Your task to perform on an android device: find snoozed emails in the gmail app Image 0: 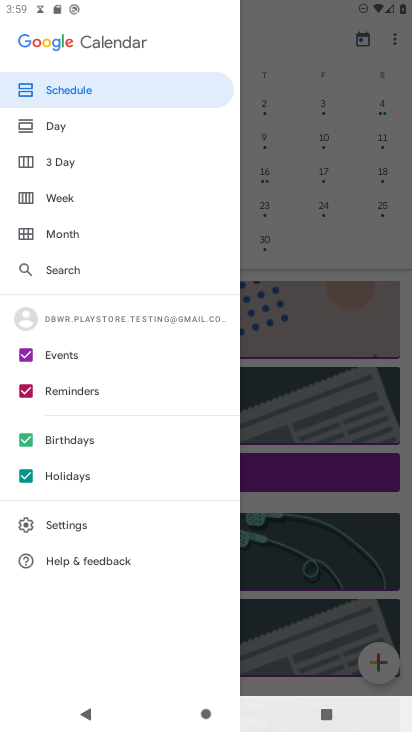
Step 0: press home button
Your task to perform on an android device: find snoozed emails in the gmail app Image 1: 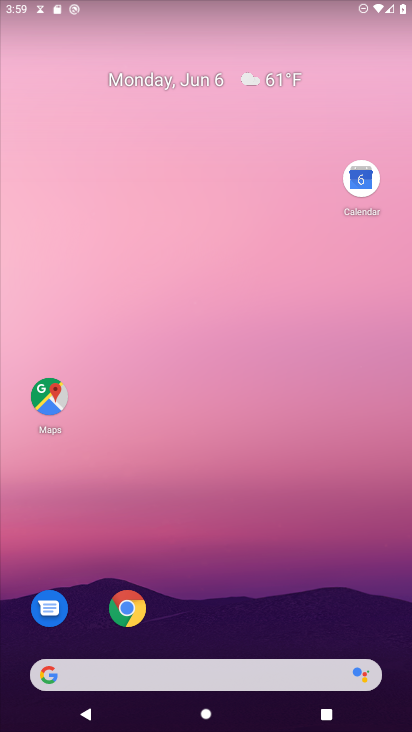
Step 1: drag from (305, 533) to (300, 12)
Your task to perform on an android device: find snoozed emails in the gmail app Image 2: 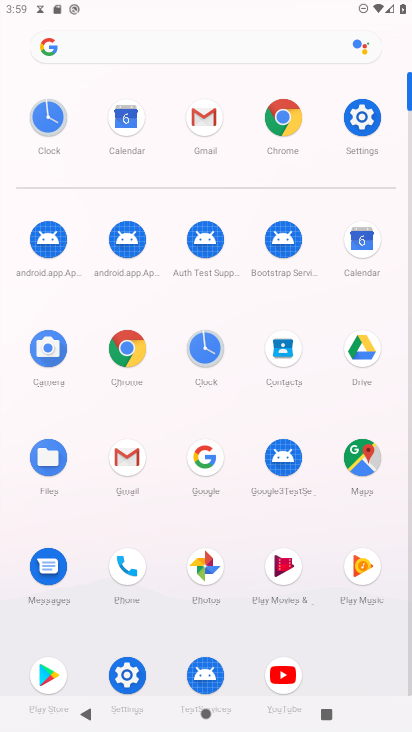
Step 2: click (122, 450)
Your task to perform on an android device: find snoozed emails in the gmail app Image 3: 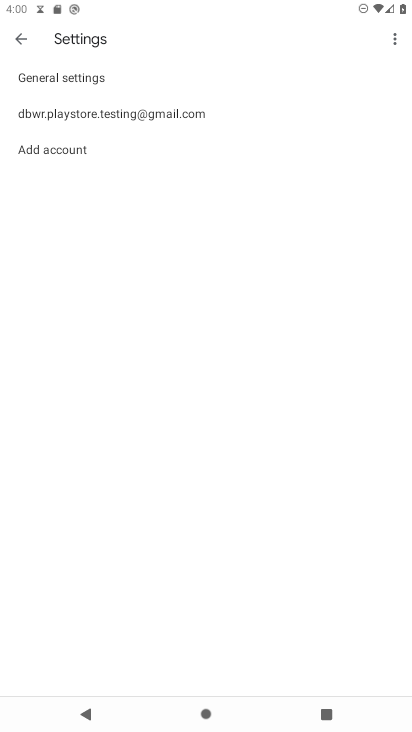
Step 3: click (13, 43)
Your task to perform on an android device: find snoozed emails in the gmail app Image 4: 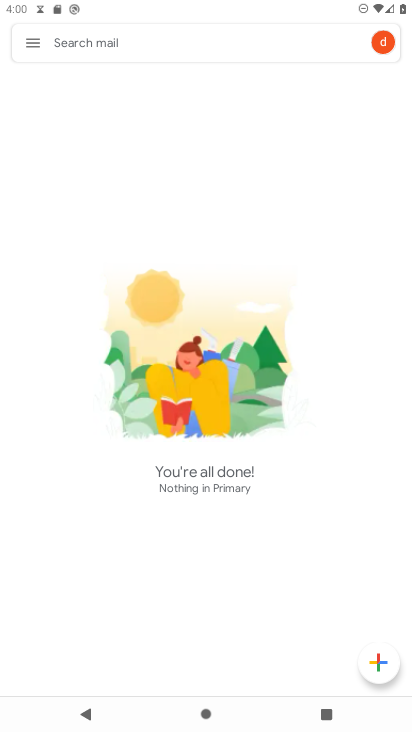
Step 4: click (28, 45)
Your task to perform on an android device: find snoozed emails in the gmail app Image 5: 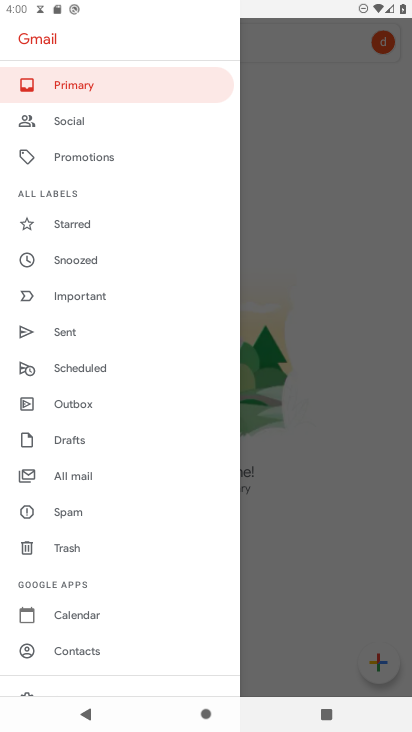
Step 5: click (88, 256)
Your task to perform on an android device: find snoozed emails in the gmail app Image 6: 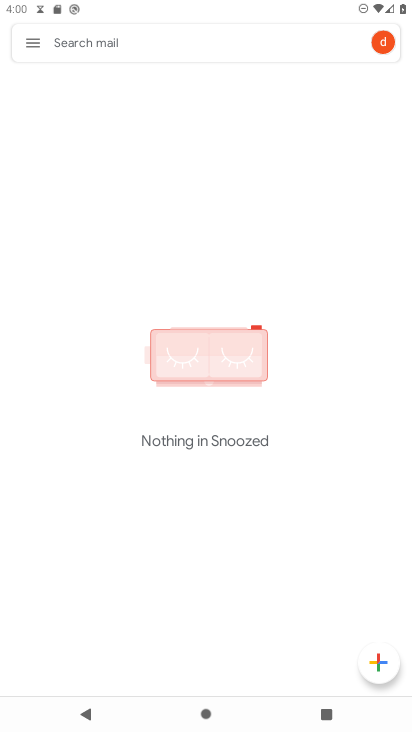
Step 6: task complete